Your task to perform on an android device: Set the phone to "Do not disturb". Image 0: 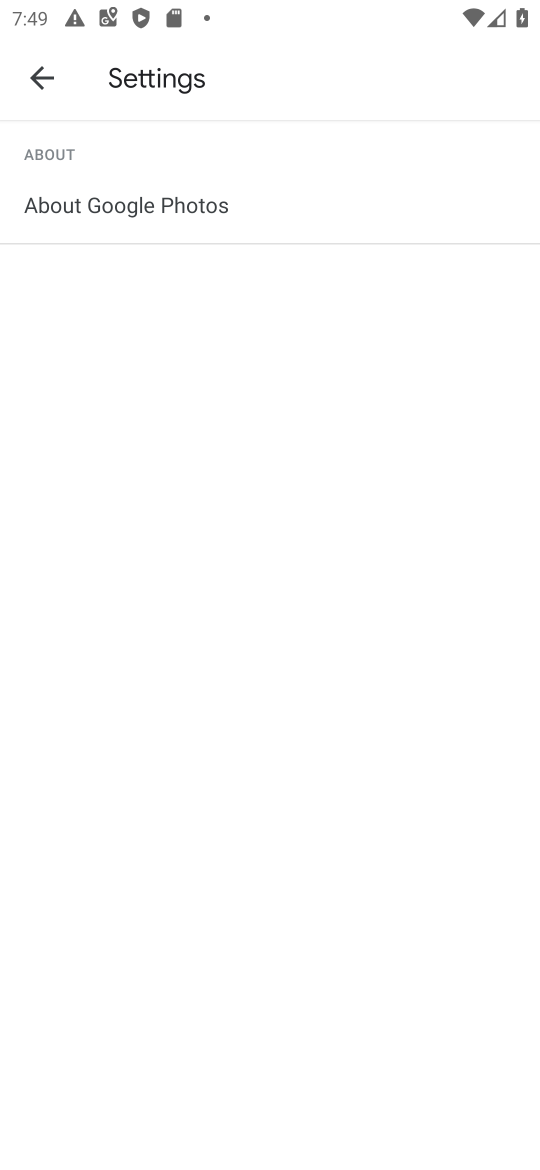
Step 0: press home button
Your task to perform on an android device: Set the phone to "Do not disturb". Image 1: 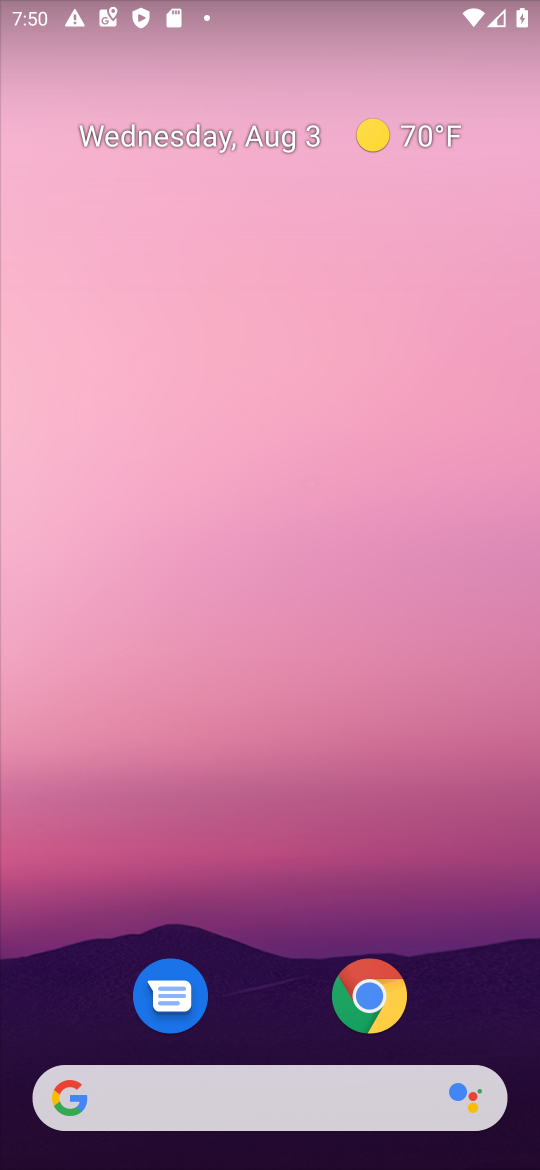
Step 1: click (310, 877)
Your task to perform on an android device: Set the phone to "Do not disturb". Image 2: 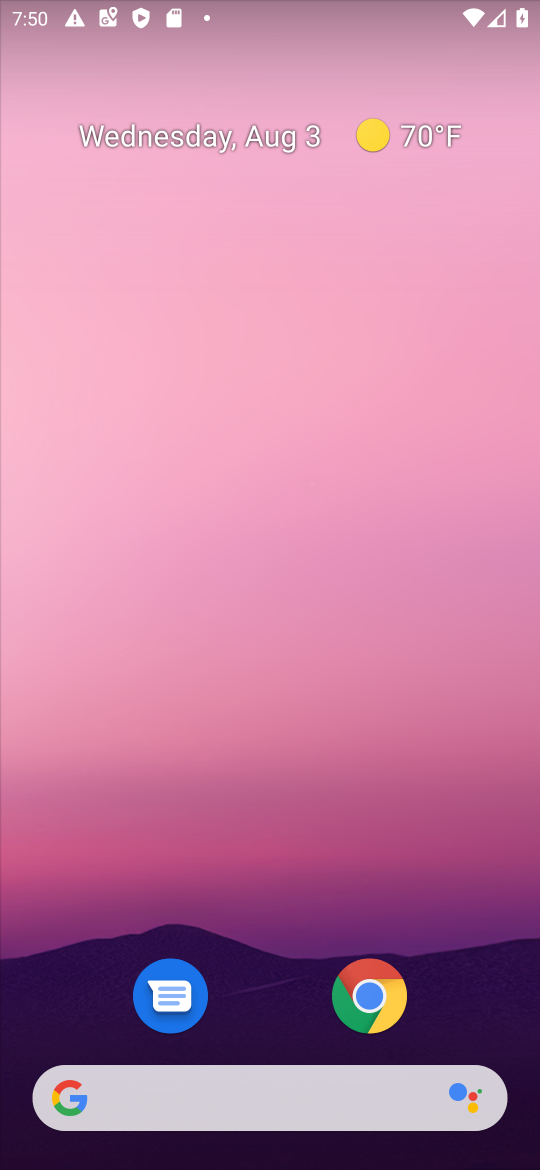
Step 2: drag from (285, 364) to (277, 1)
Your task to perform on an android device: Set the phone to "Do not disturb". Image 3: 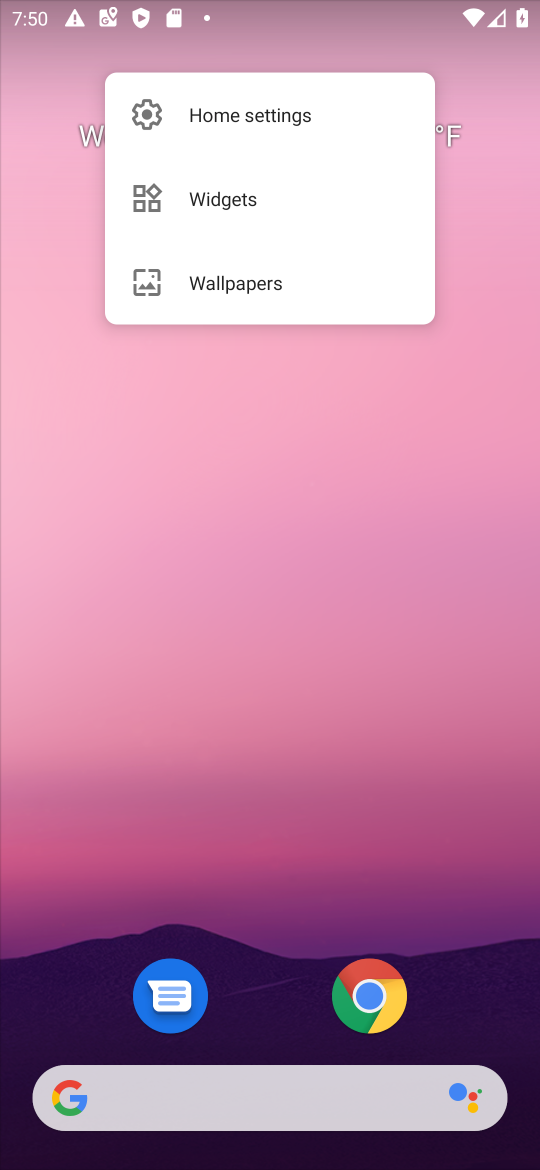
Step 3: click (393, 872)
Your task to perform on an android device: Set the phone to "Do not disturb". Image 4: 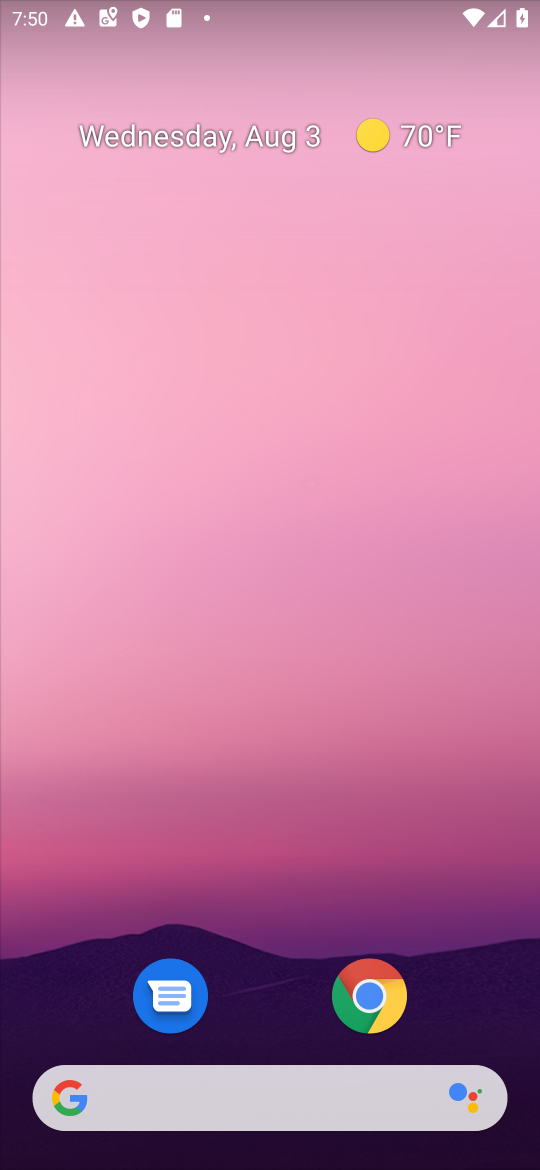
Step 4: drag from (275, 969) to (257, 0)
Your task to perform on an android device: Set the phone to "Do not disturb". Image 5: 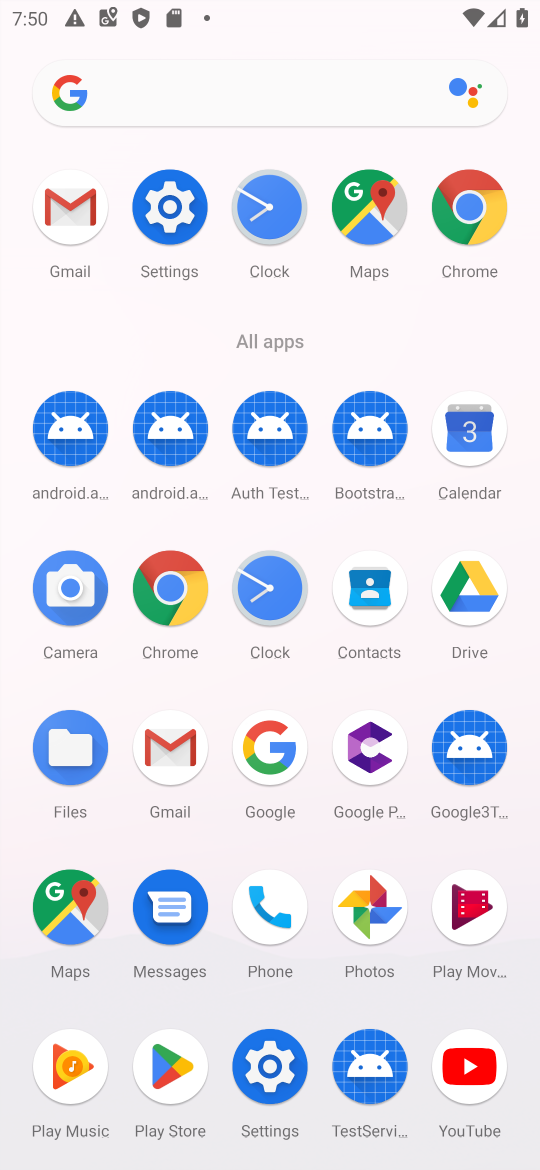
Step 5: click (164, 200)
Your task to perform on an android device: Set the phone to "Do not disturb". Image 6: 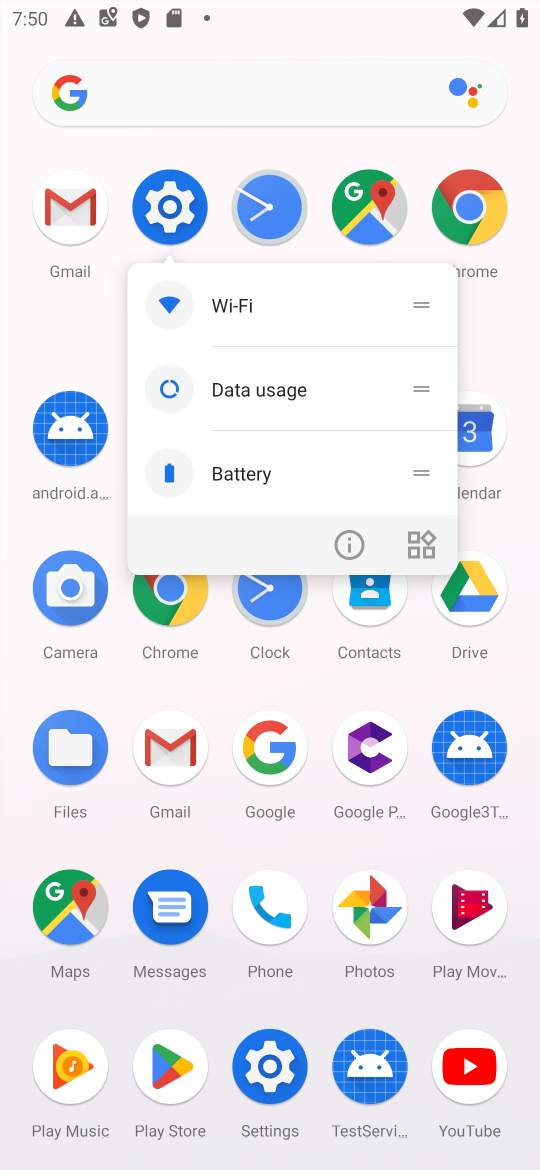
Step 6: click (164, 202)
Your task to perform on an android device: Set the phone to "Do not disturb". Image 7: 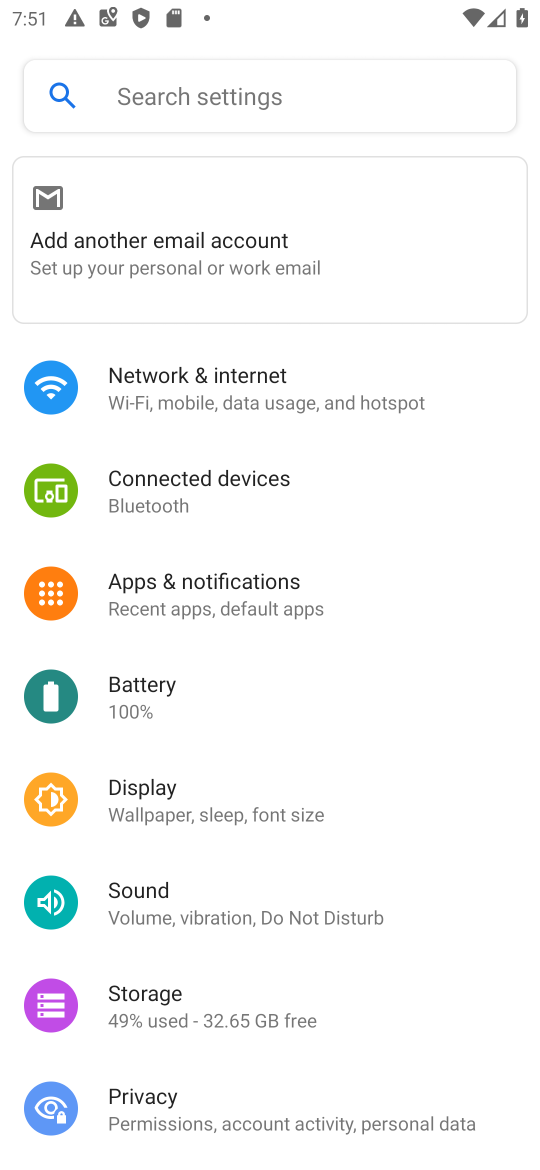
Step 7: click (271, 899)
Your task to perform on an android device: Set the phone to "Do not disturb". Image 8: 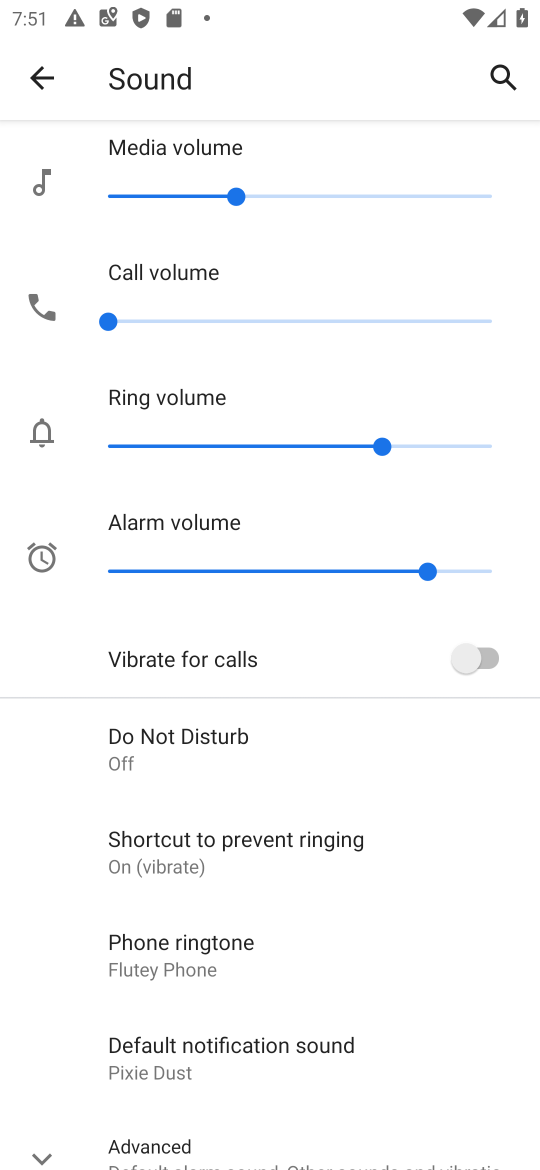
Step 8: click (235, 744)
Your task to perform on an android device: Set the phone to "Do not disturb". Image 9: 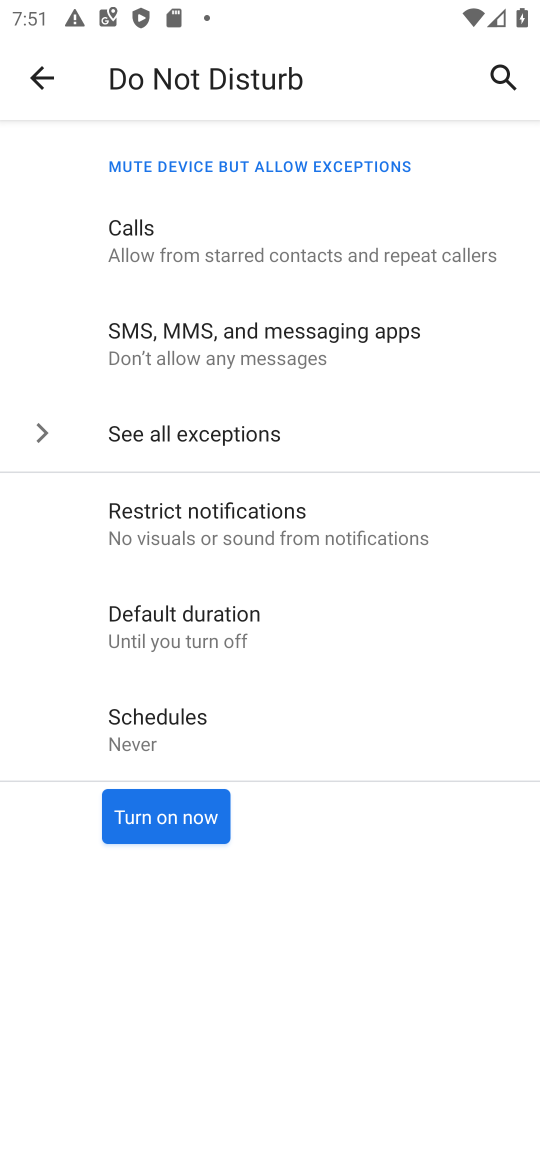
Step 9: click (215, 812)
Your task to perform on an android device: Set the phone to "Do not disturb". Image 10: 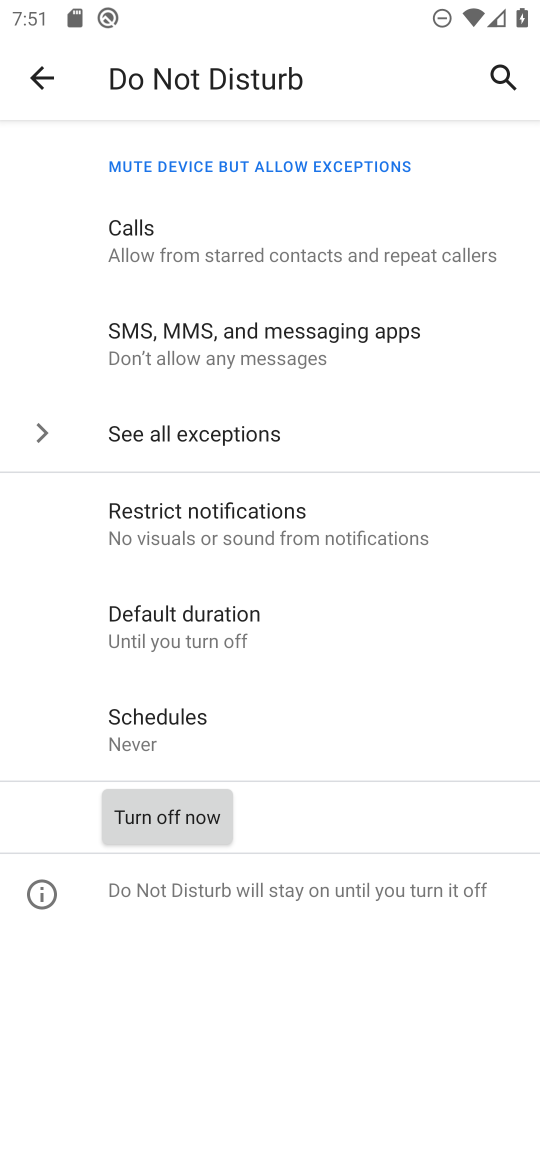
Step 10: task complete